Your task to perform on an android device: delete browsing data in the chrome app Image 0: 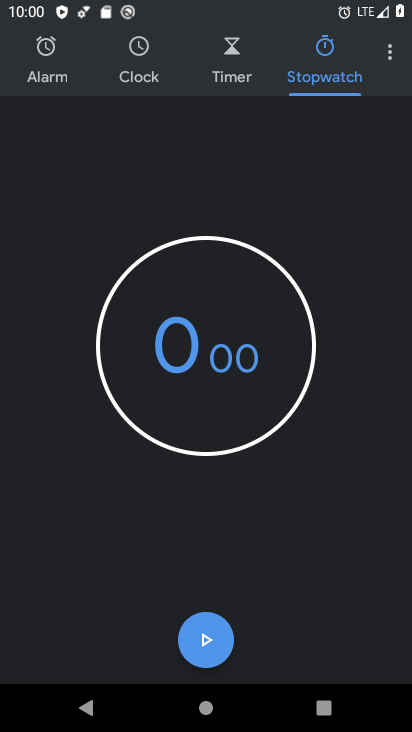
Step 0: press home button
Your task to perform on an android device: delete browsing data in the chrome app Image 1: 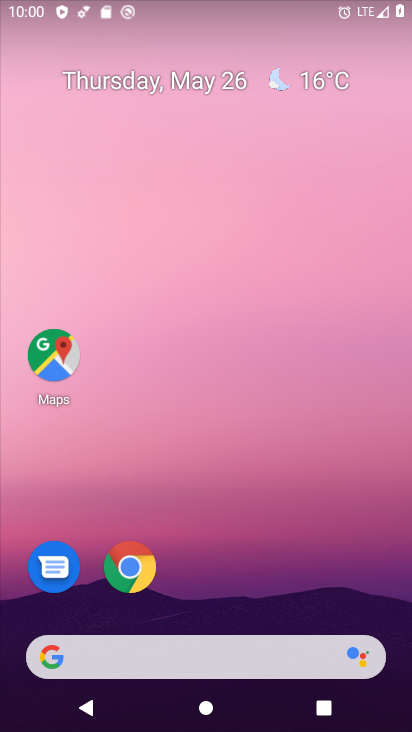
Step 1: drag from (398, 704) to (268, 235)
Your task to perform on an android device: delete browsing data in the chrome app Image 2: 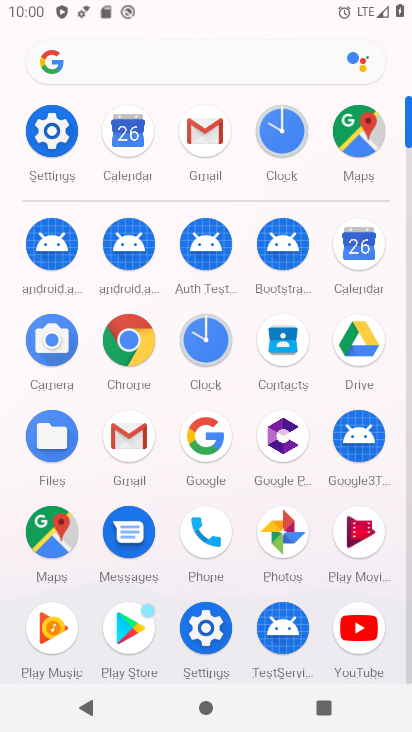
Step 2: click (116, 337)
Your task to perform on an android device: delete browsing data in the chrome app Image 3: 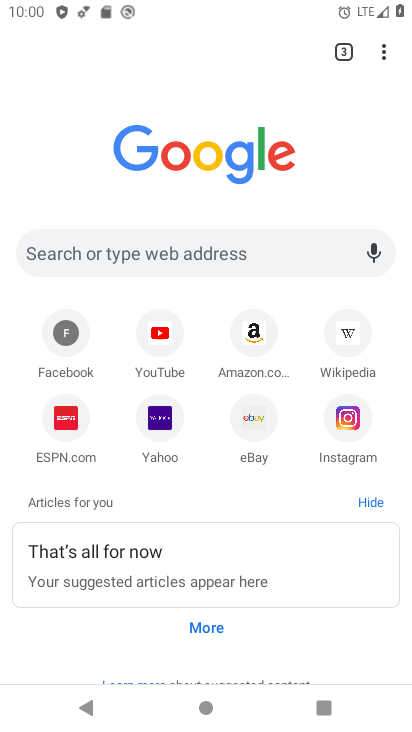
Step 3: click (386, 45)
Your task to perform on an android device: delete browsing data in the chrome app Image 4: 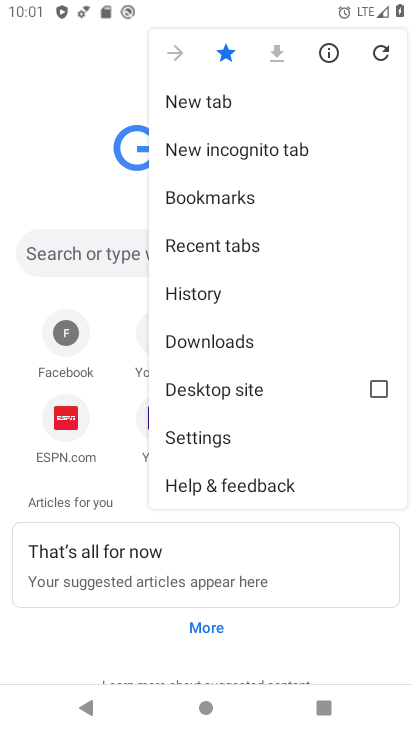
Step 4: click (175, 290)
Your task to perform on an android device: delete browsing data in the chrome app Image 5: 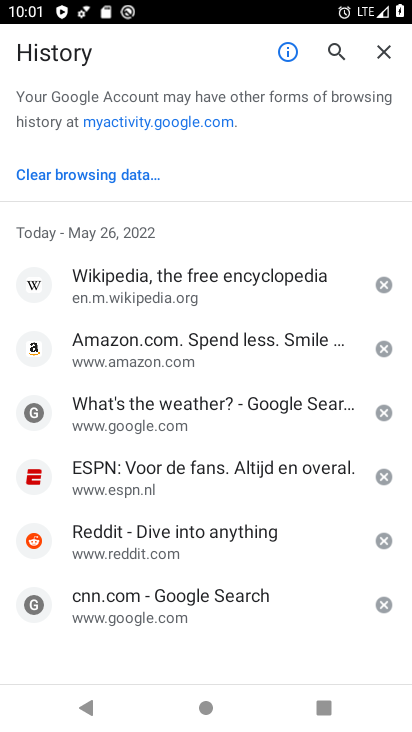
Step 5: click (108, 176)
Your task to perform on an android device: delete browsing data in the chrome app Image 6: 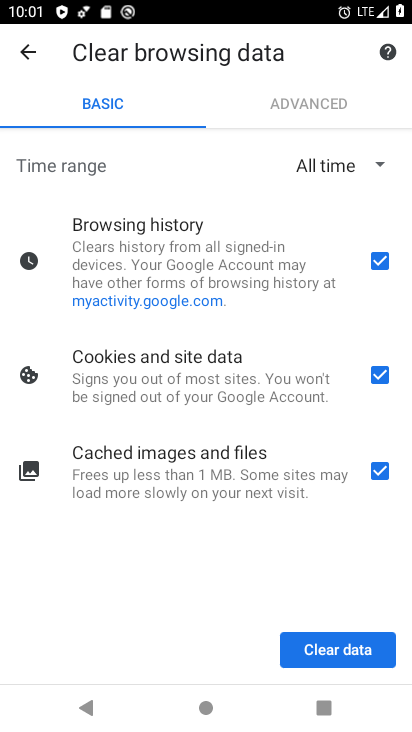
Step 6: click (346, 658)
Your task to perform on an android device: delete browsing data in the chrome app Image 7: 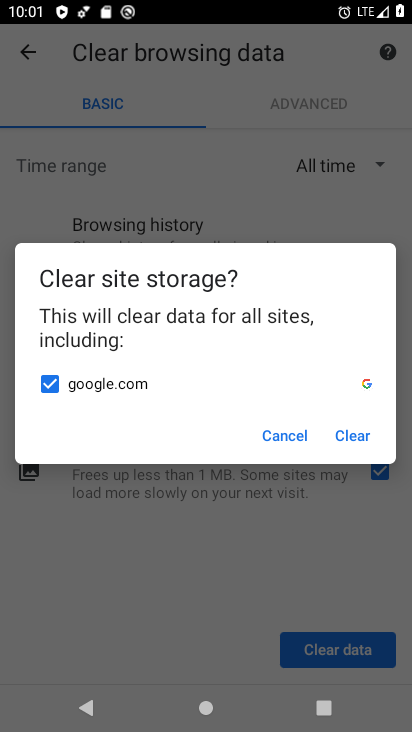
Step 7: click (352, 434)
Your task to perform on an android device: delete browsing data in the chrome app Image 8: 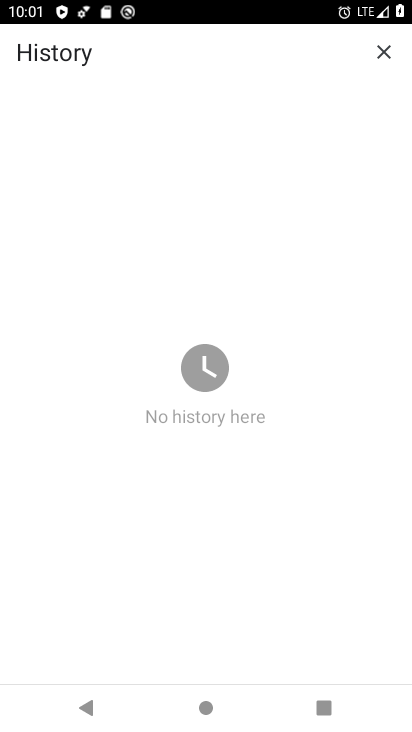
Step 8: task complete